Your task to perform on an android device: change alarm snooze length Image 0: 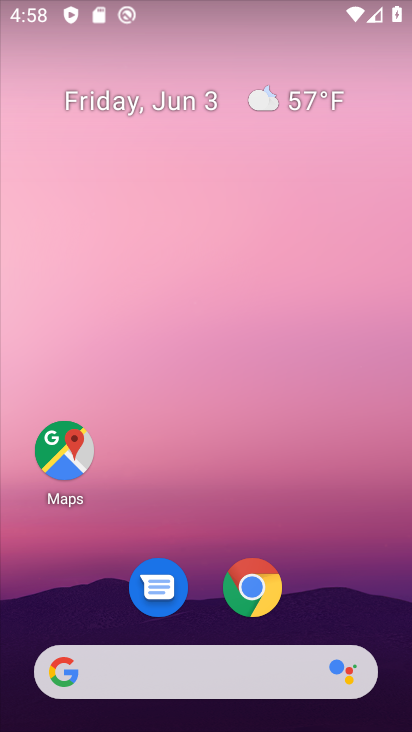
Step 0: drag from (211, 603) to (219, 77)
Your task to perform on an android device: change alarm snooze length Image 1: 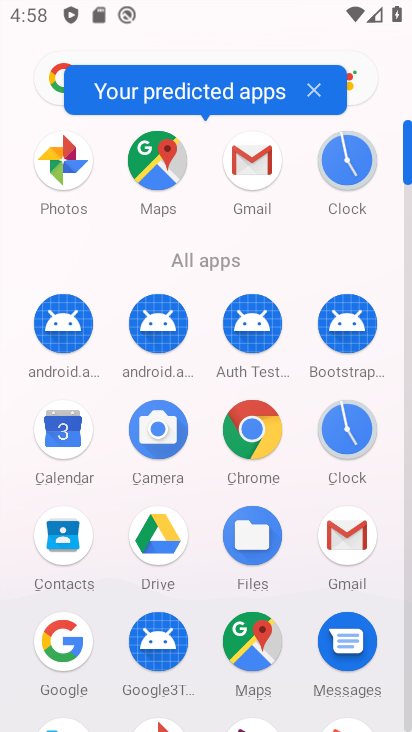
Step 1: click (346, 138)
Your task to perform on an android device: change alarm snooze length Image 2: 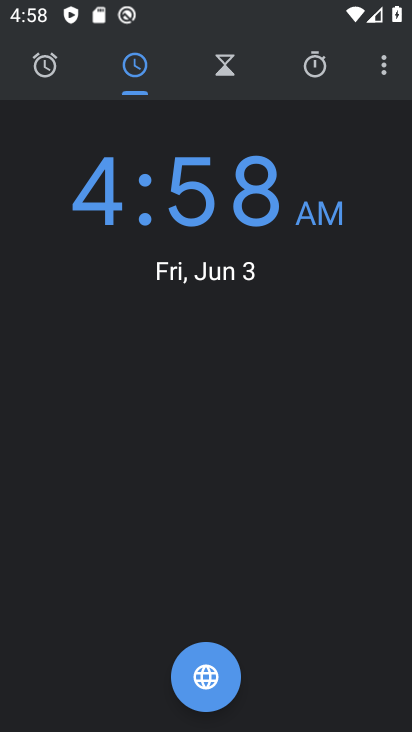
Step 2: click (381, 62)
Your task to perform on an android device: change alarm snooze length Image 3: 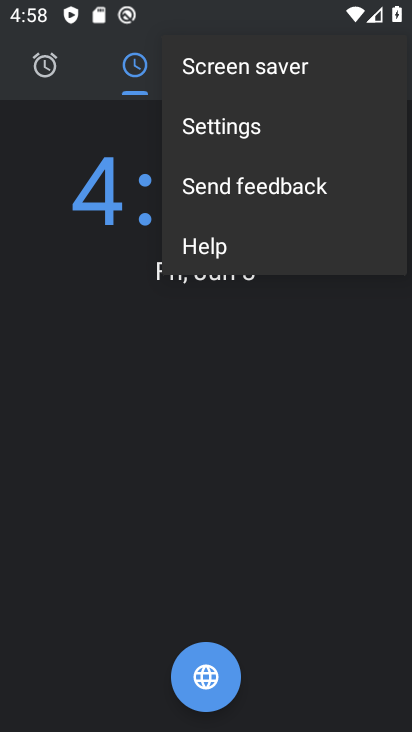
Step 3: click (292, 135)
Your task to perform on an android device: change alarm snooze length Image 4: 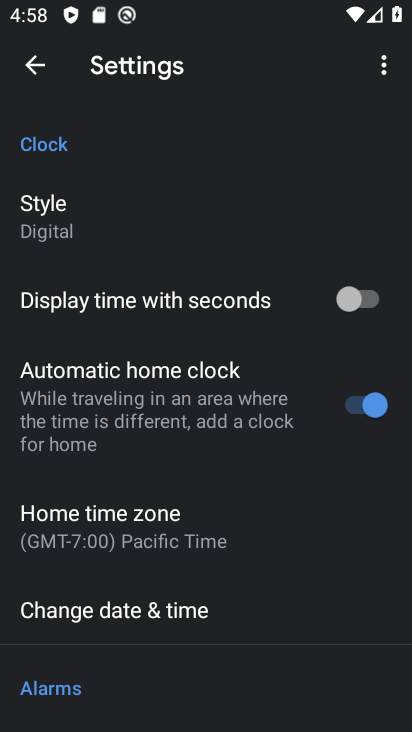
Step 4: drag from (221, 564) to (254, 111)
Your task to perform on an android device: change alarm snooze length Image 5: 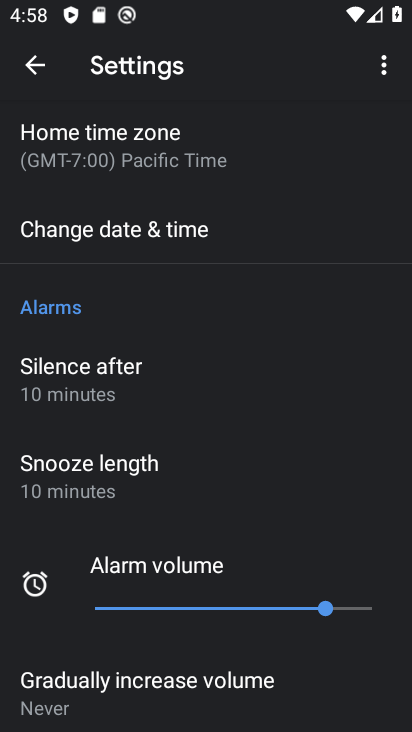
Step 5: click (72, 471)
Your task to perform on an android device: change alarm snooze length Image 6: 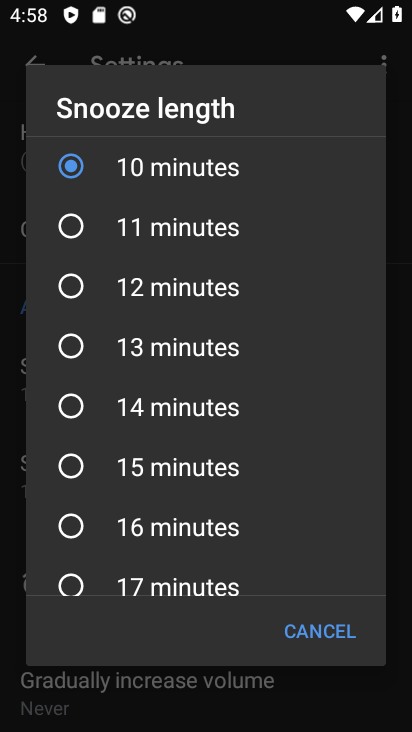
Step 6: click (209, 536)
Your task to perform on an android device: change alarm snooze length Image 7: 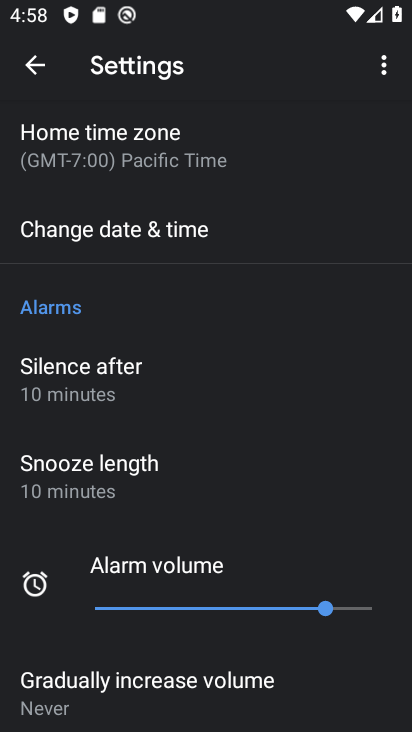
Step 7: task complete